Your task to perform on an android device: Is it going to rain this weekend? Image 0: 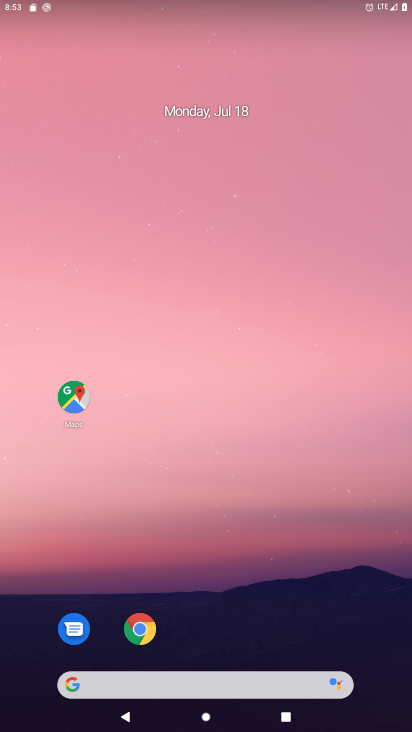
Step 0: click (168, 682)
Your task to perform on an android device: Is it going to rain this weekend? Image 1: 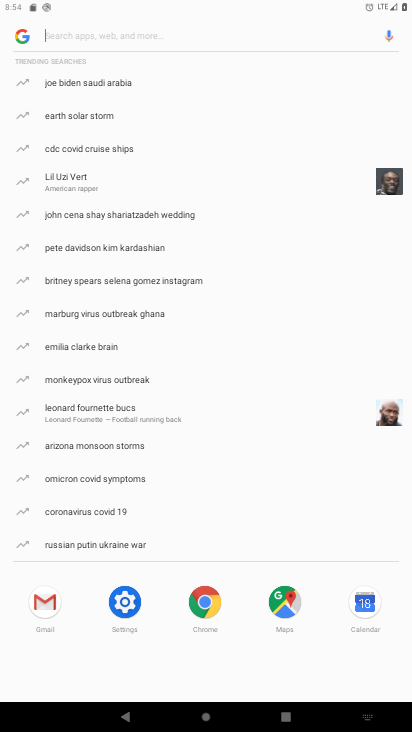
Step 1: type "weather"
Your task to perform on an android device: Is it going to rain this weekend? Image 2: 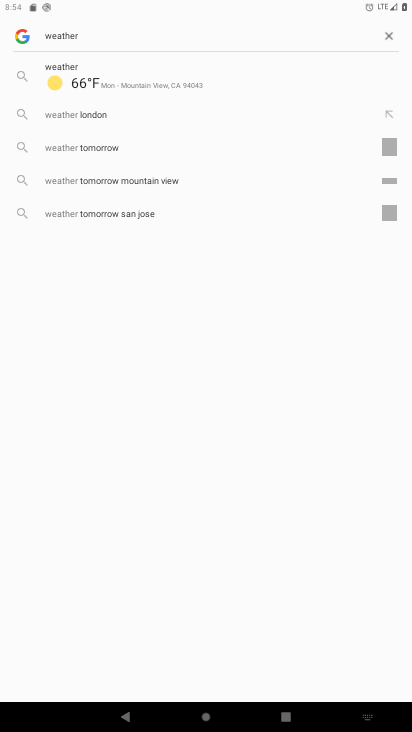
Step 2: click (97, 150)
Your task to perform on an android device: Is it going to rain this weekend? Image 3: 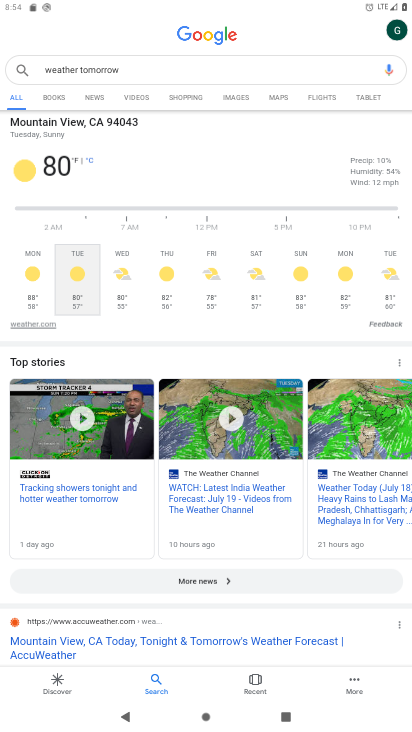
Step 3: task complete